Your task to perform on an android device: Clear all items from cart on target.com. Search for "acer nitro" on target.com, select the first entry, and add it to the cart. Image 0: 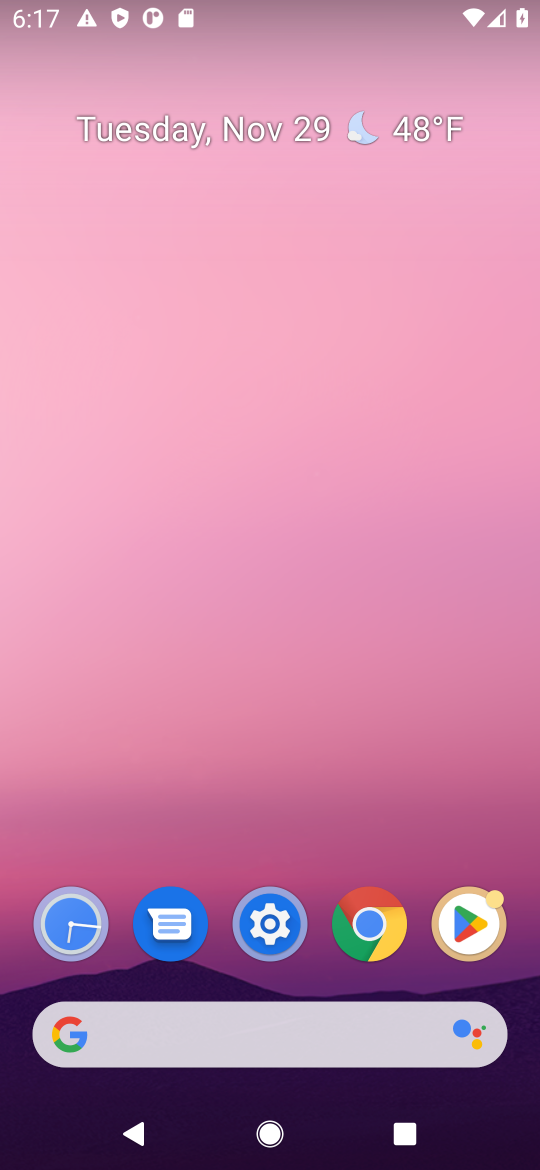
Step 0: click (227, 1035)
Your task to perform on an android device: Clear all items from cart on target.com. Search for "acer nitro" on target.com, select the first entry, and add it to the cart. Image 1: 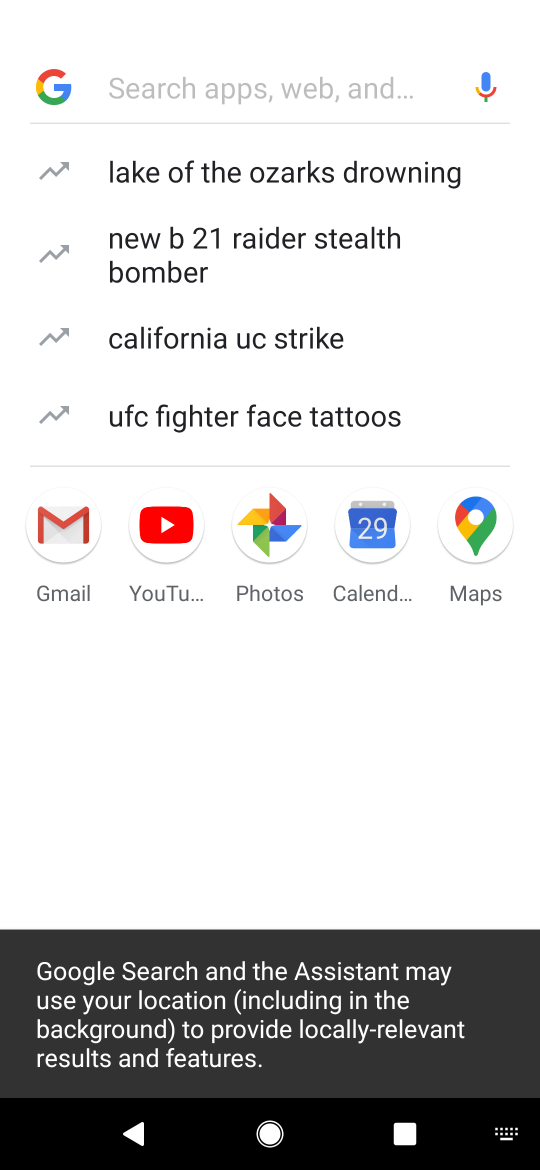
Step 1: type "target"
Your task to perform on an android device: Clear all items from cart on target.com. Search for "acer nitro" on target.com, select the first entry, and add it to the cart. Image 2: 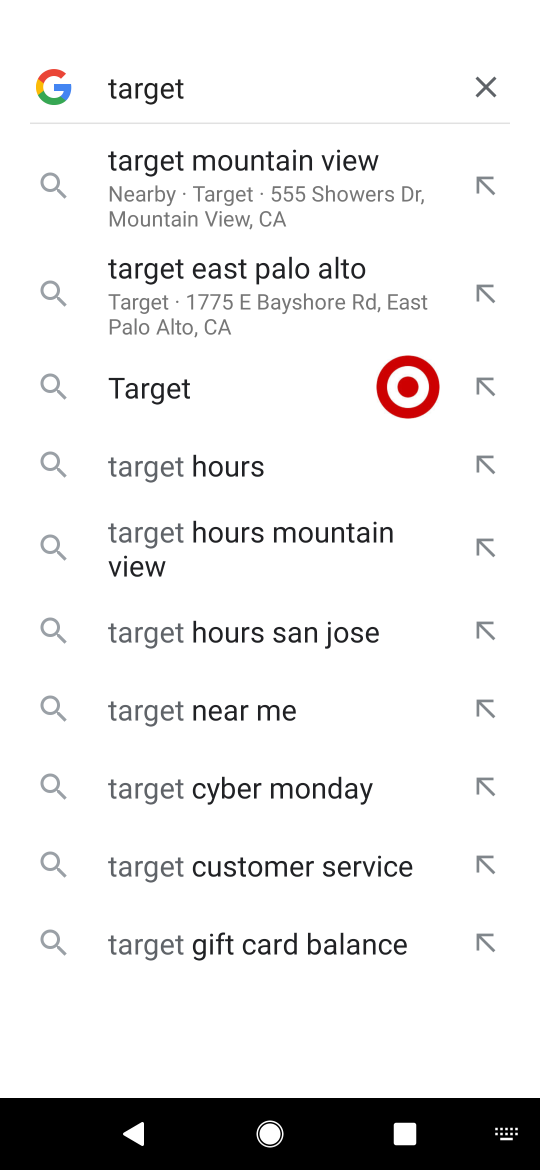
Step 2: click (283, 391)
Your task to perform on an android device: Clear all items from cart on target.com. Search for "acer nitro" on target.com, select the first entry, and add it to the cart. Image 3: 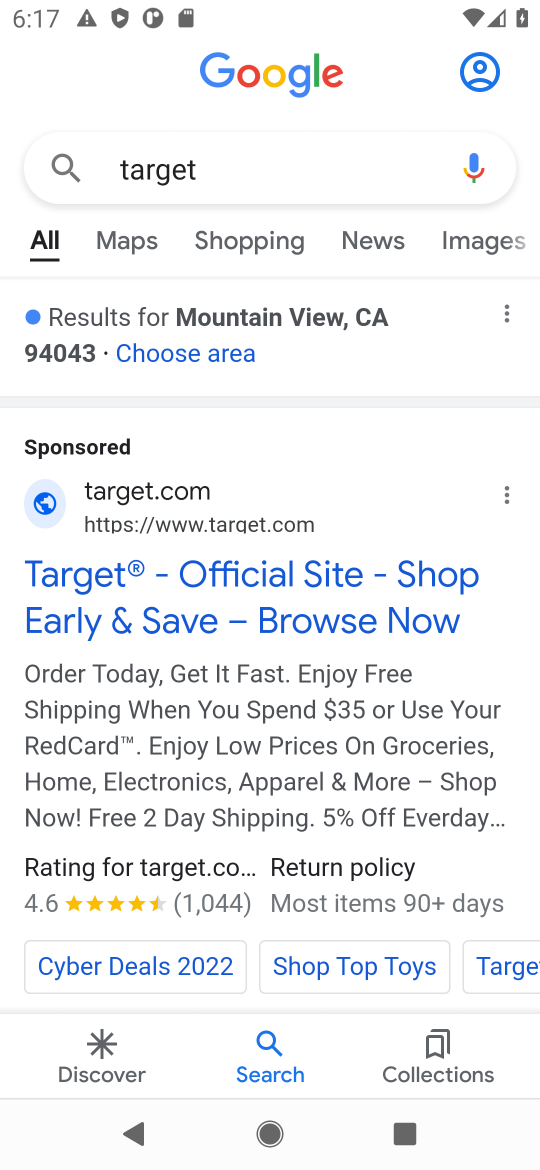
Step 3: click (114, 633)
Your task to perform on an android device: Clear all items from cart on target.com. Search for "acer nitro" on target.com, select the first entry, and add it to the cart. Image 4: 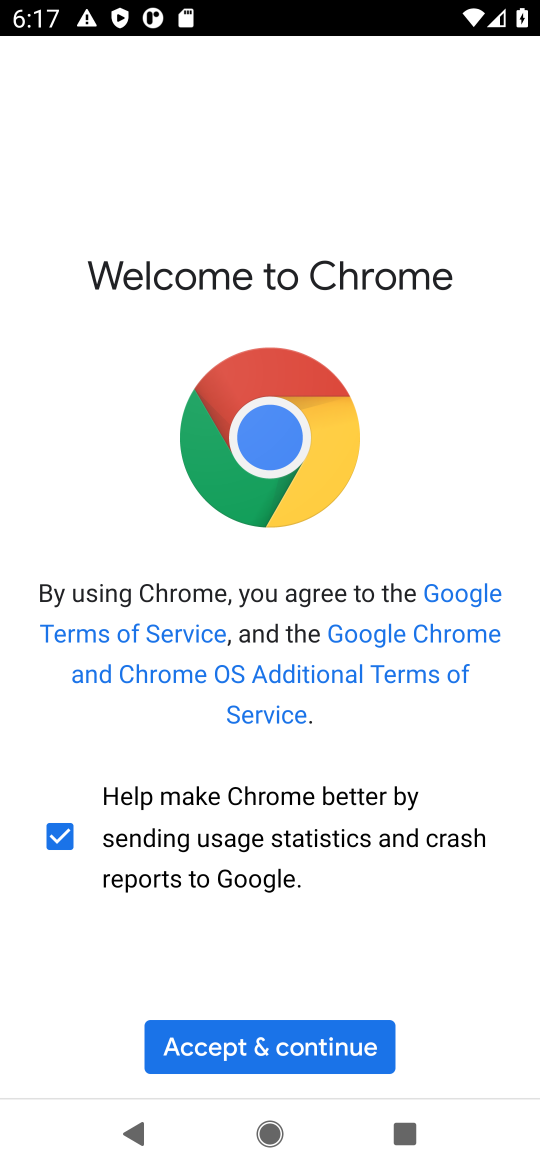
Step 4: click (285, 1042)
Your task to perform on an android device: Clear all items from cart on target.com. Search for "acer nitro" on target.com, select the first entry, and add it to the cart. Image 5: 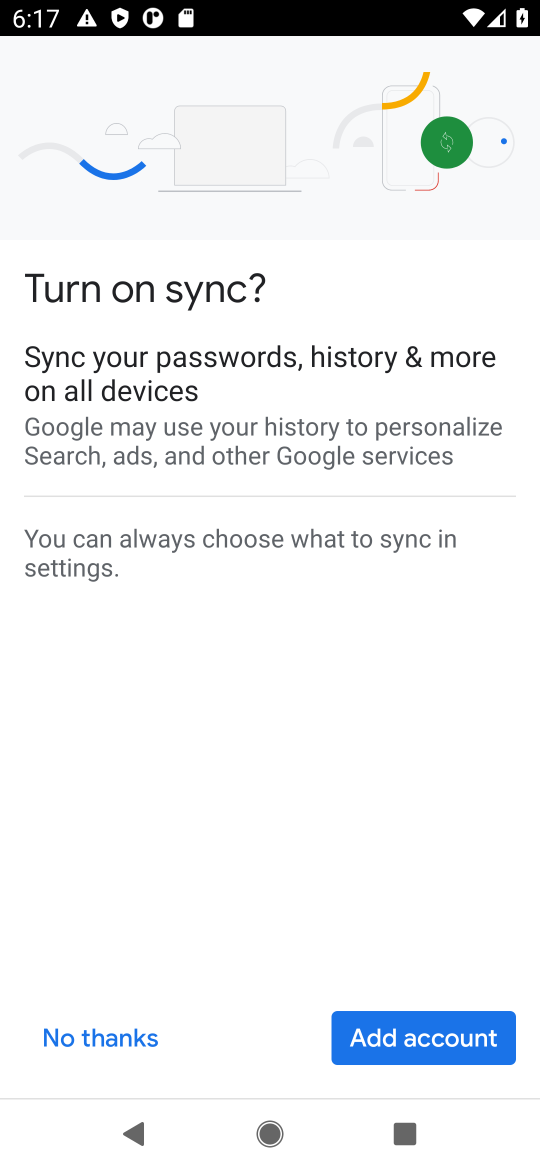
Step 5: click (136, 1039)
Your task to perform on an android device: Clear all items from cart on target.com. Search for "acer nitro" on target.com, select the first entry, and add it to the cart. Image 6: 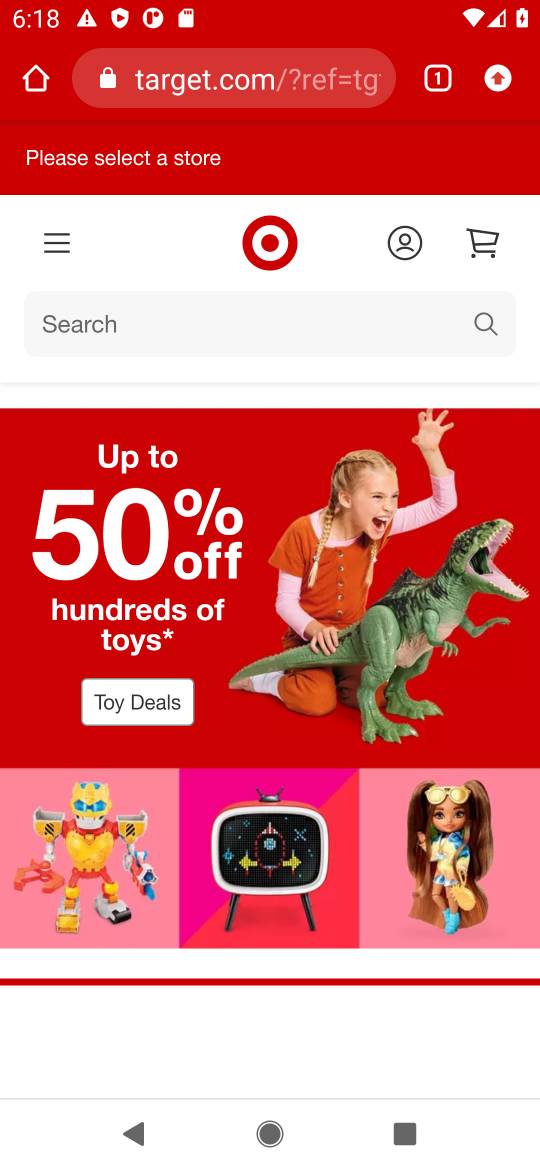
Step 6: task complete